Your task to perform on an android device: turn on translation in the chrome app Image 0: 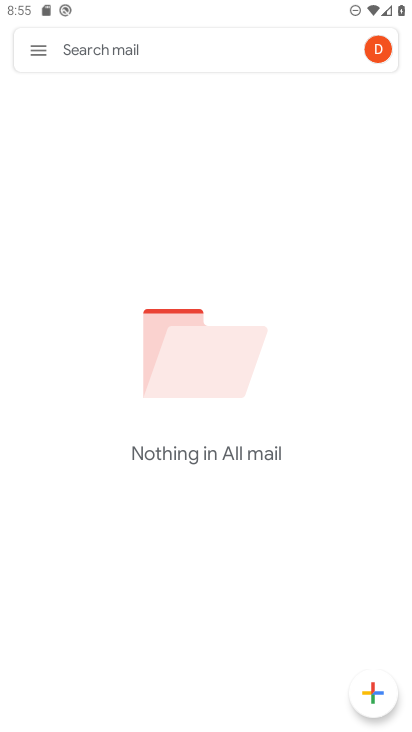
Step 0: press home button
Your task to perform on an android device: turn on translation in the chrome app Image 1: 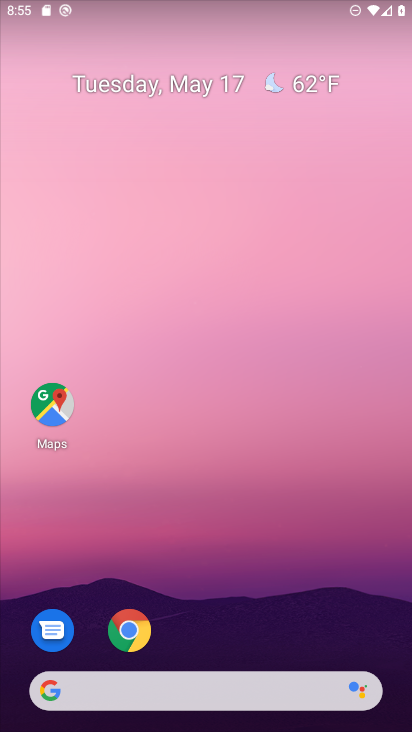
Step 1: click (124, 636)
Your task to perform on an android device: turn on translation in the chrome app Image 2: 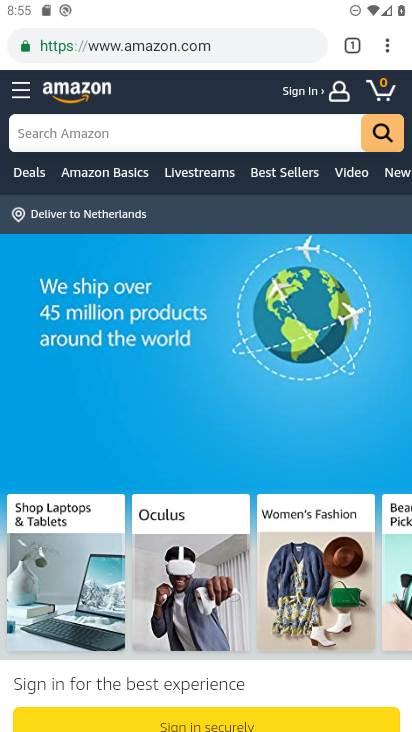
Step 2: click (390, 52)
Your task to perform on an android device: turn on translation in the chrome app Image 3: 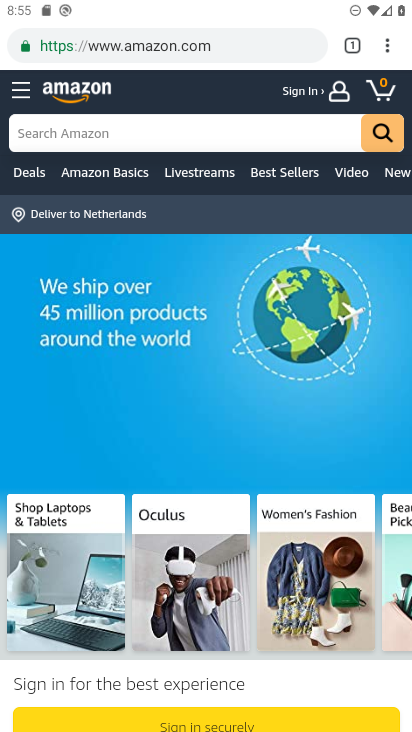
Step 3: click (397, 45)
Your task to perform on an android device: turn on translation in the chrome app Image 4: 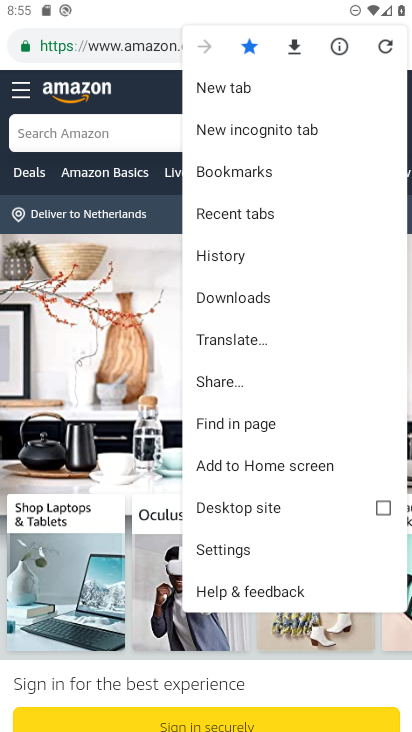
Step 4: click (256, 540)
Your task to perform on an android device: turn on translation in the chrome app Image 5: 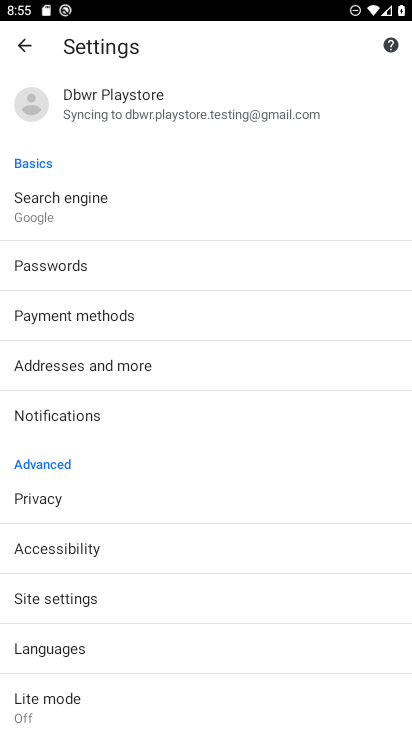
Step 5: click (65, 644)
Your task to perform on an android device: turn on translation in the chrome app Image 6: 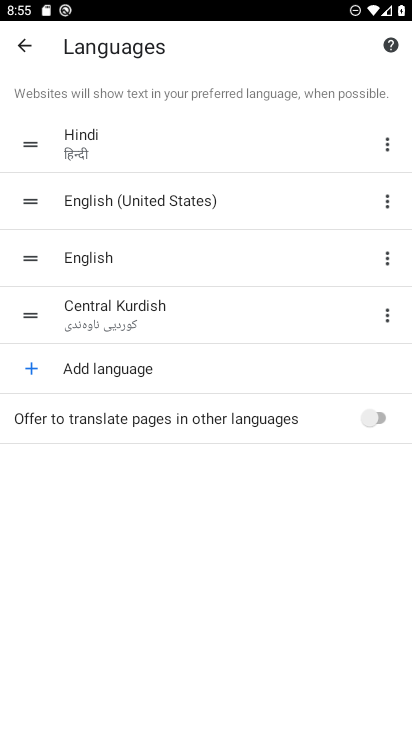
Step 6: click (384, 418)
Your task to perform on an android device: turn on translation in the chrome app Image 7: 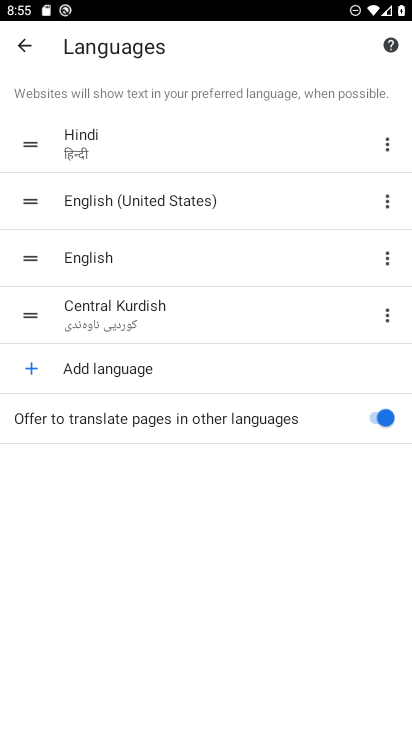
Step 7: task complete